Your task to perform on an android device: Go to Reddit.com Image 0: 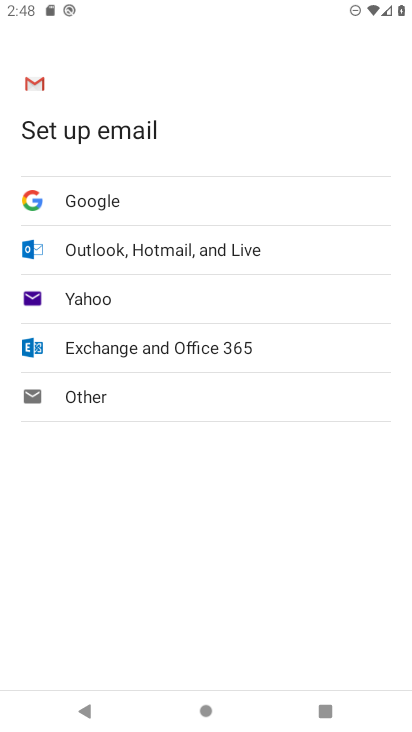
Step 0: press home button
Your task to perform on an android device: Go to Reddit.com Image 1: 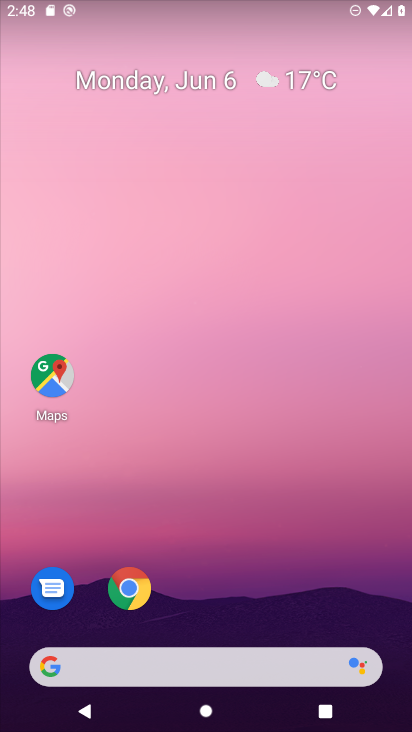
Step 1: click (163, 678)
Your task to perform on an android device: Go to Reddit.com Image 2: 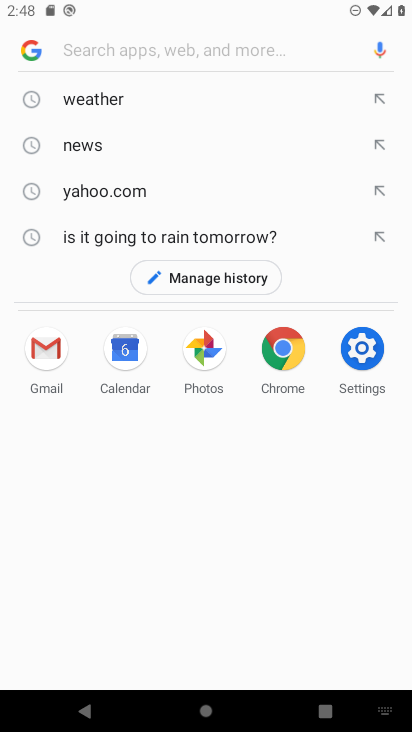
Step 2: type "reddit.com"
Your task to perform on an android device: Go to Reddit.com Image 3: 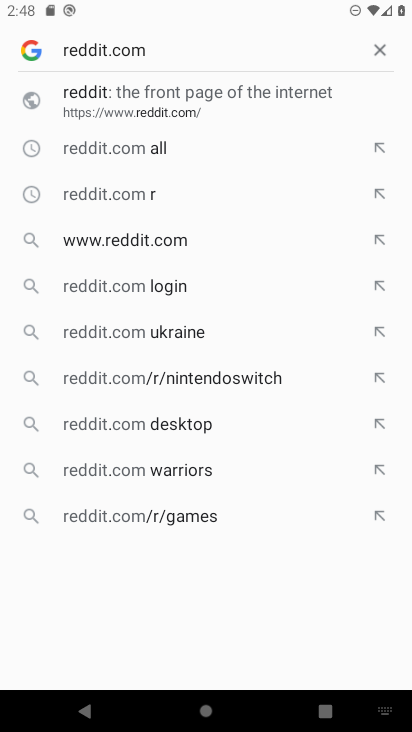
Step 3: click (268, 105)
Your task to perform on an android device: Go to Reddit.com Image 4: 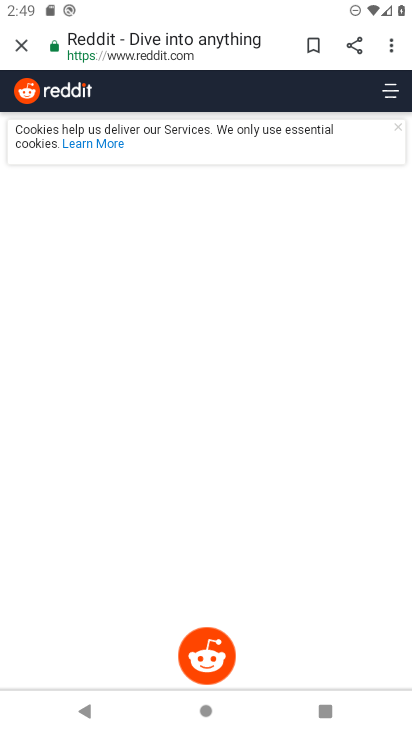
Step 4: task complete